Your task to perform on an android device: change the clock display to analog Image 0: 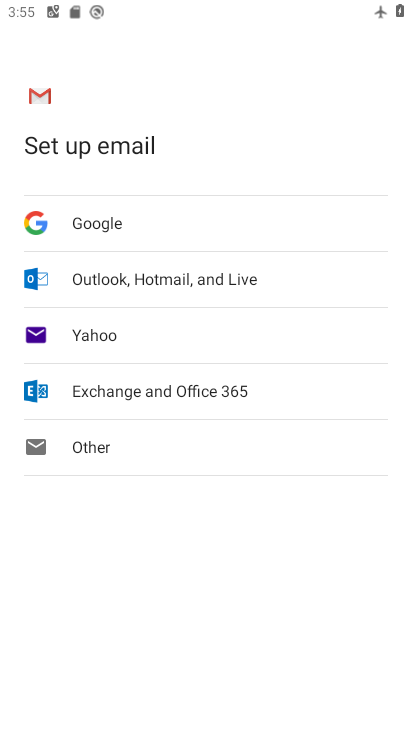
Step 0: press home button
Your task to perform on an android device: change the clock display to analog Image 1: 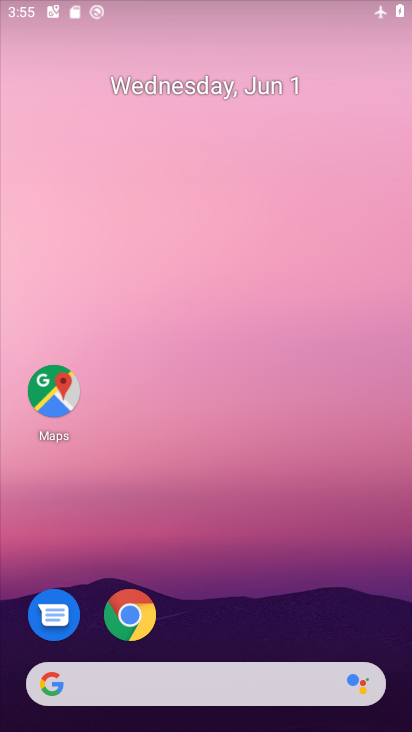
Step 1: drag from (257, 543) to (277, 147)
Your task to perform on an android device: change the clock display to analog Image 2: 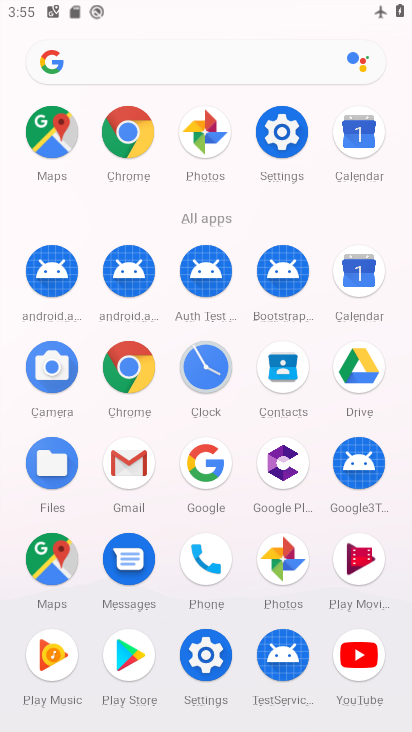
Step 2: click (193, 369)
Your task to perform on an android device: change the clock display to analog Image 3: 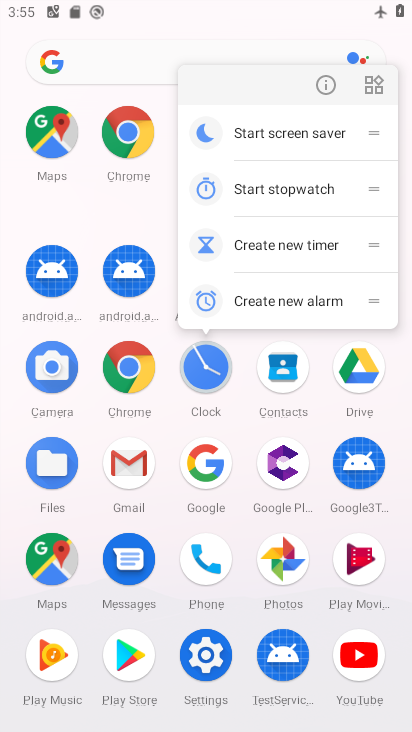
Step 3: click (210, 383)
Your task to perform on an android device: change the clock display to analog Image 4: 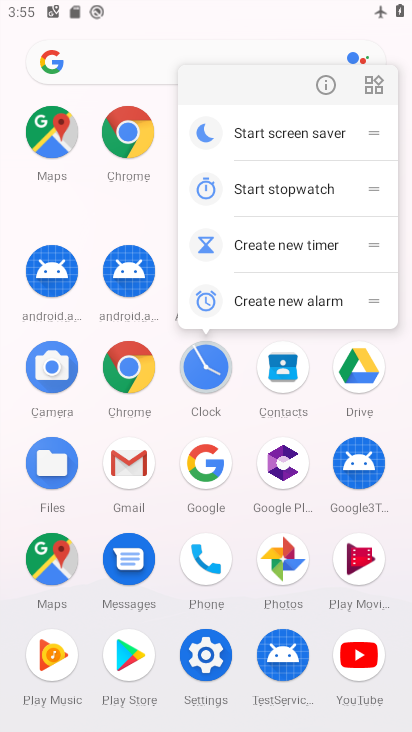
Step 4: click (211, 366)
Your task to perform on an android device: change the clock display to analog Image 5: 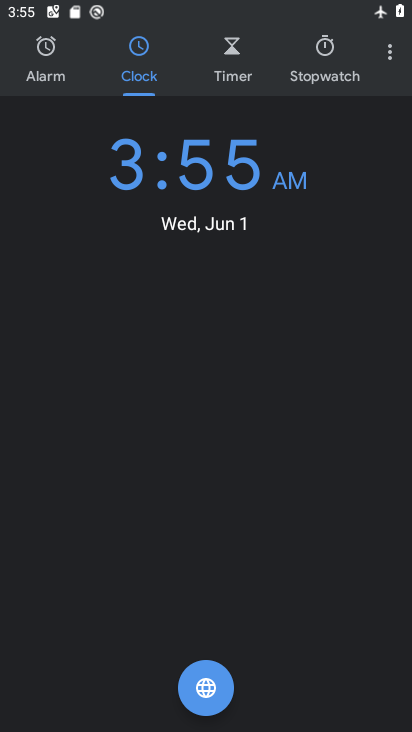
Step 5: click (401, 53)
Your task to perform on an android device: change the clock display to analog Image 6: 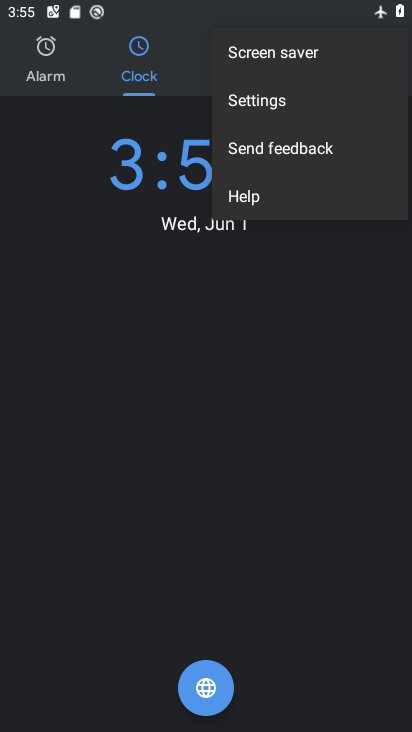
Step 6: click (311, 100)
Your task to perform on an android device: change the clock display to analog Image 7: 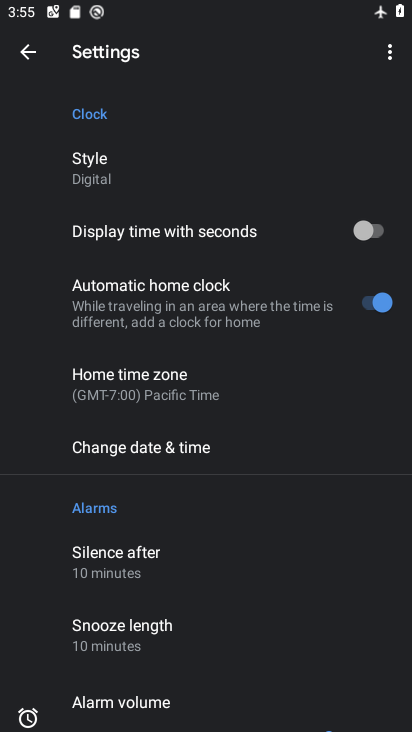
Step 7: click (88, 160)
Your task to perform on an android device: change the clock display to analog Image 8: 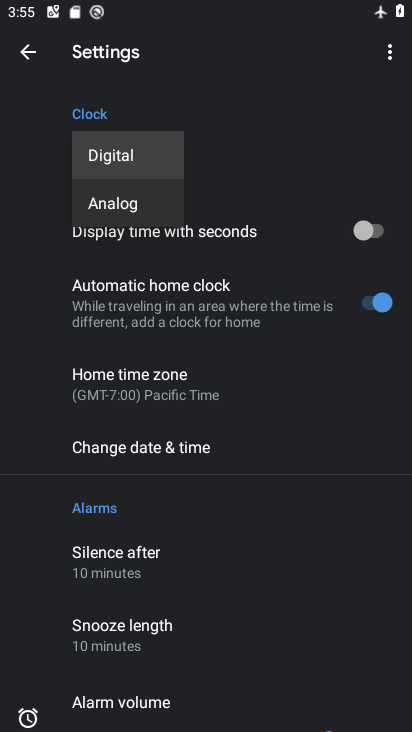
Step 8: click (148, 211)
Your task to perform on an android device: change the clock display to analog Image 9: 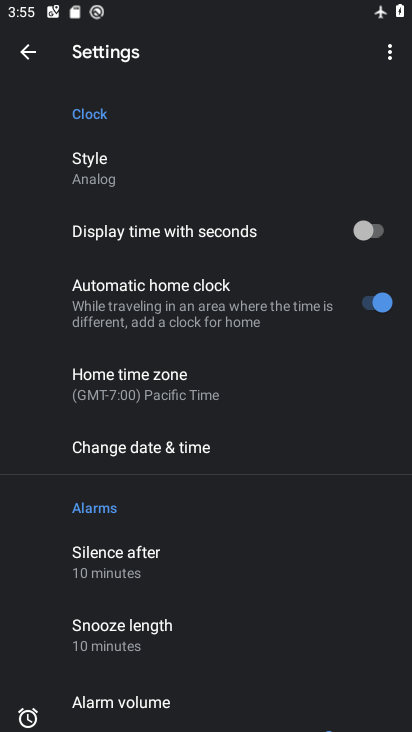
Step 9: task complete